Your task to perform on an android device: Show me recent news Image 0: 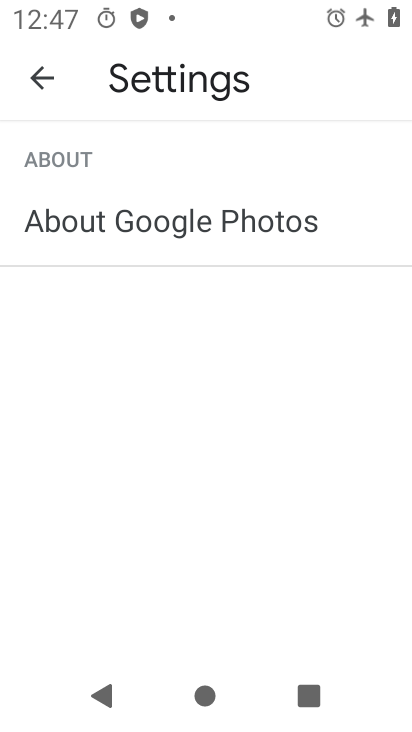
Step 0: press home button
Your task to perform on an android device: Show me recent news Image 1: 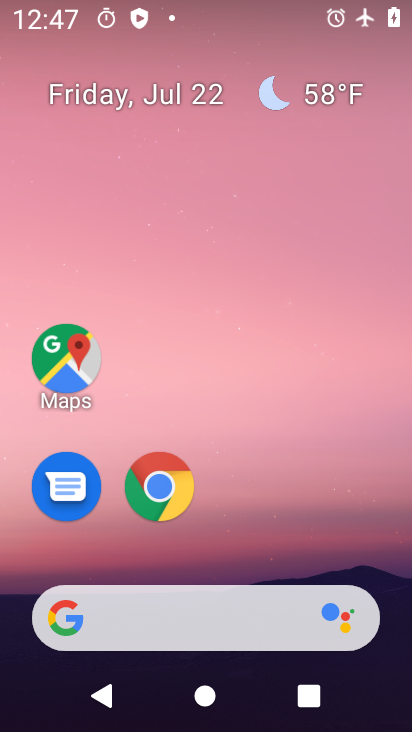
Step 1: task complete